Your task to perform on an android device: What is the news today? Image 0: 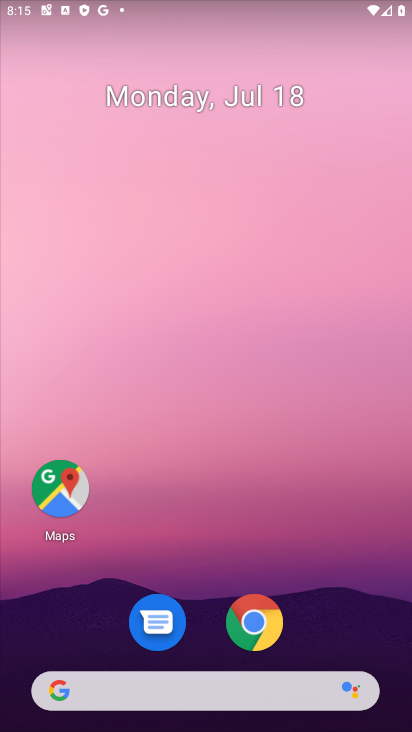
Step 0: drag from (251, 586) to (235, 154)
Your task to perform on an android device: What is the news today? Image 1: 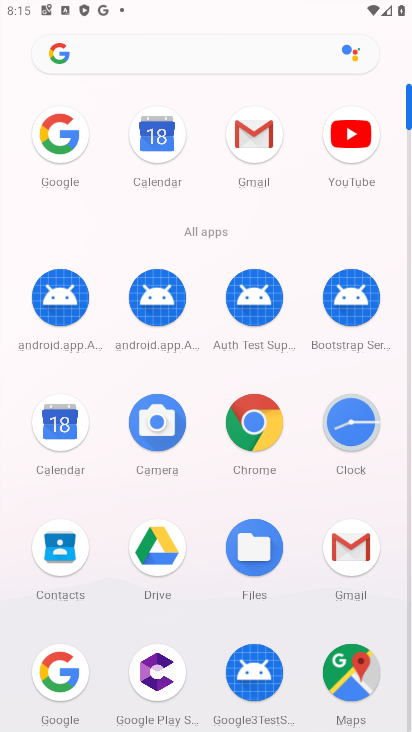
Step 1: drag from (268, 539) to (263, 255)
Your task to perform on an android device: What is the news today? Image 2: 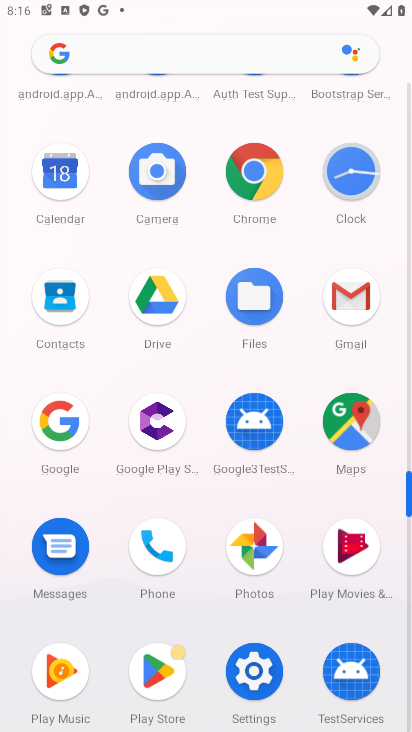
Step 2: click (64, 439)
Your task to perform on an android device: What is the news today? Image 3: 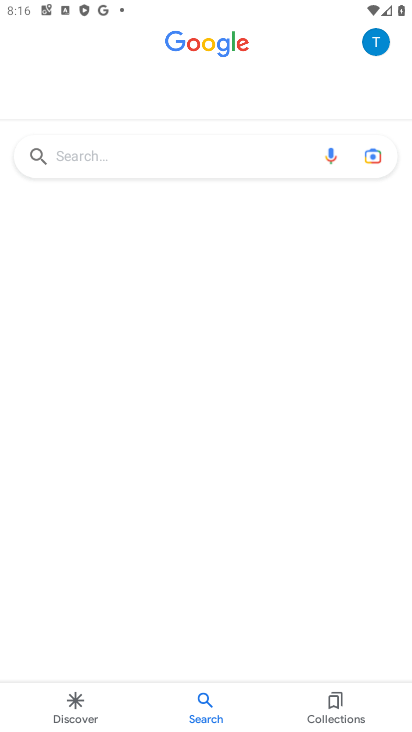
Step 3: click (194, 169)
Your task to perform on an android device: What is the news today? Image 4: 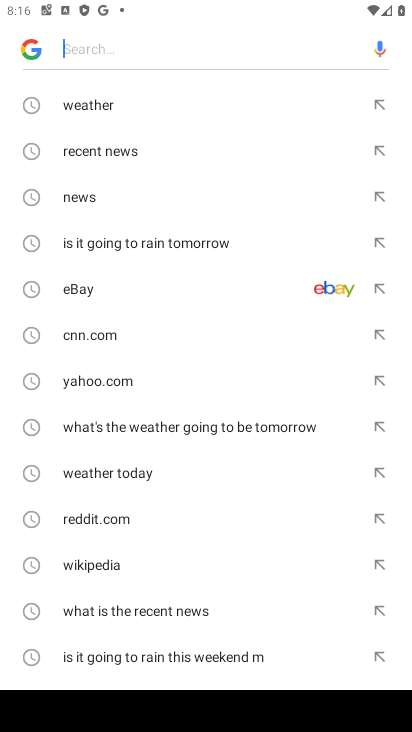
Step 4: click (100, 186)
Your task to perform on an android device: What is the news today? Image 5: 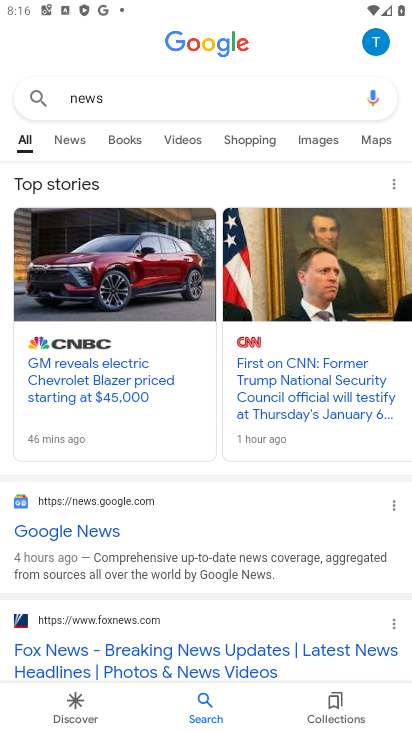
Step 5: click (72, 143)
Your task to perform on an android device: What is the news today? Image 6: 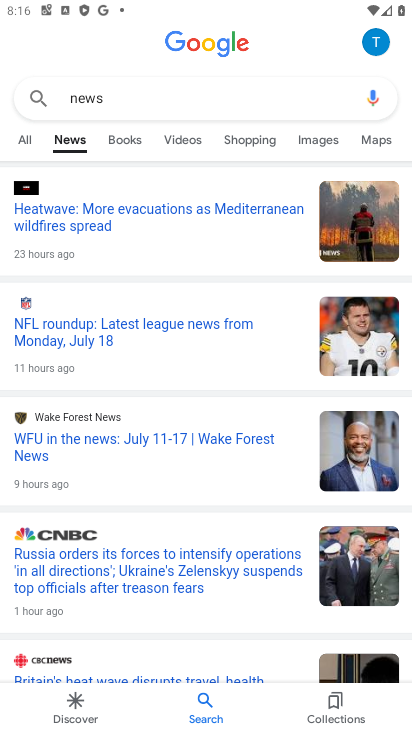
Step 6: task complete